Your task to perform on an android device: open app "AliExpress" Image 0: 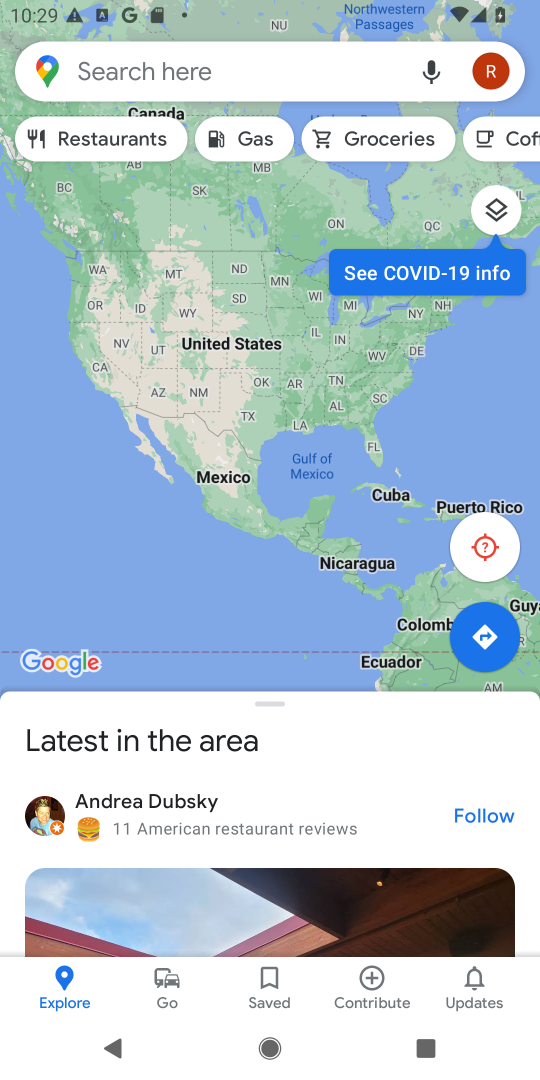
Step 0: press home button
Your task to perform on an android device: open app "AliExpress" Image 1: 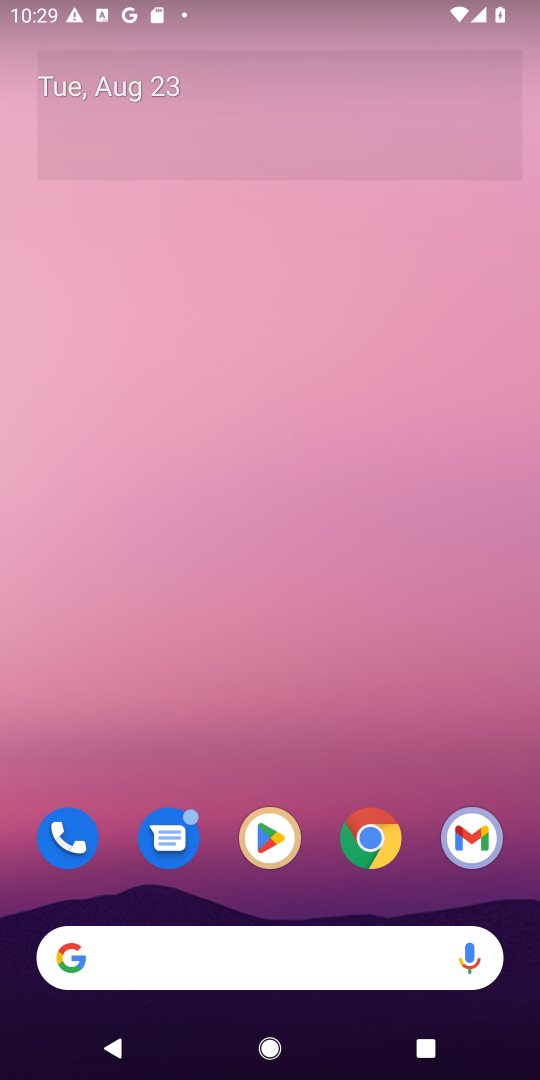
Step 1: click (270, 838)
Your task to perform on an android device: open app "AliExpress" Image 2: 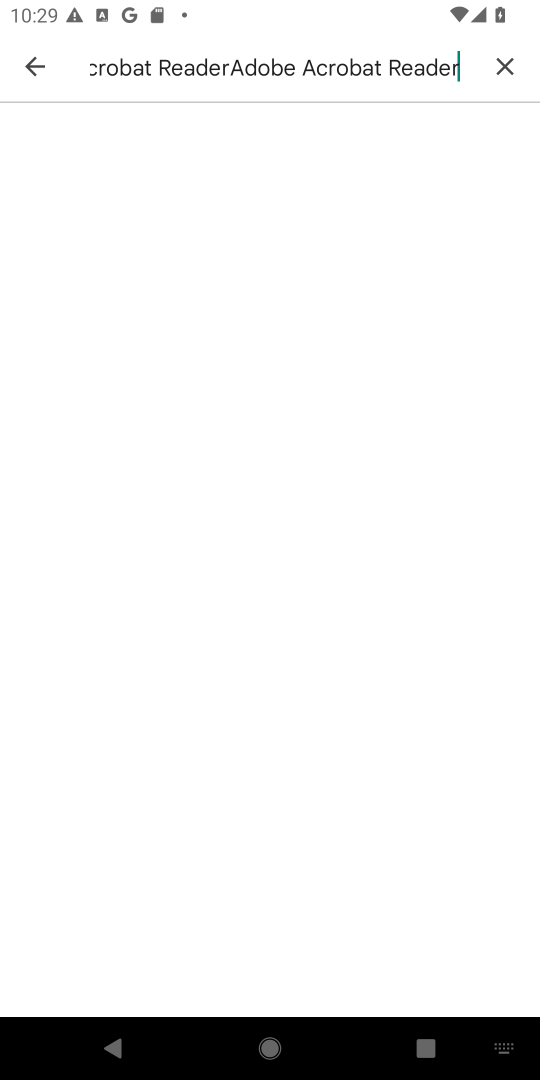
Step 2: click (496, 60)
Your task to perform on an android device: open app "AliExpress" Image 3: 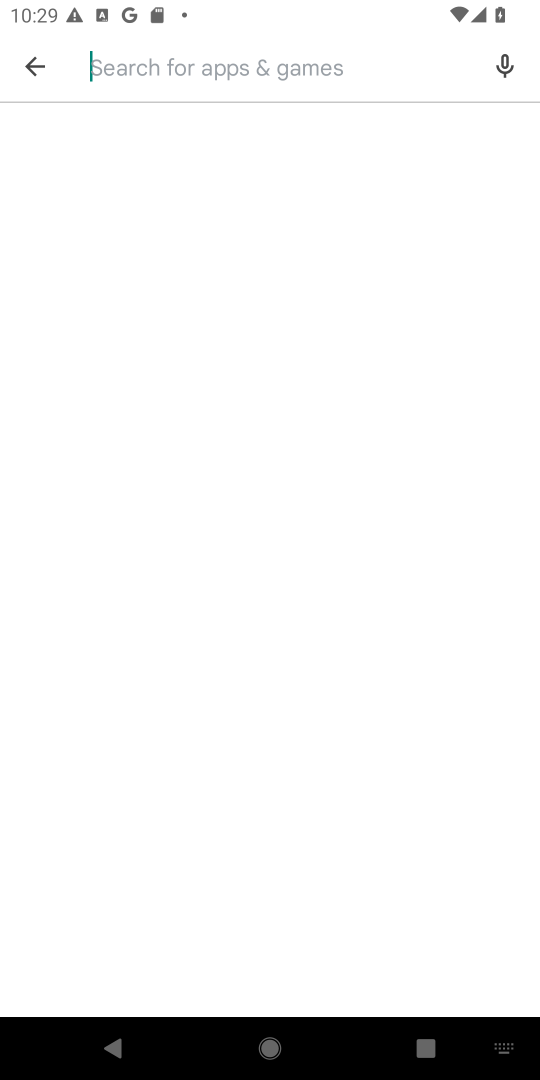
Step 3: click (493, 57)
Your task to perform on an android device: open app "AliExpress" Image 4: 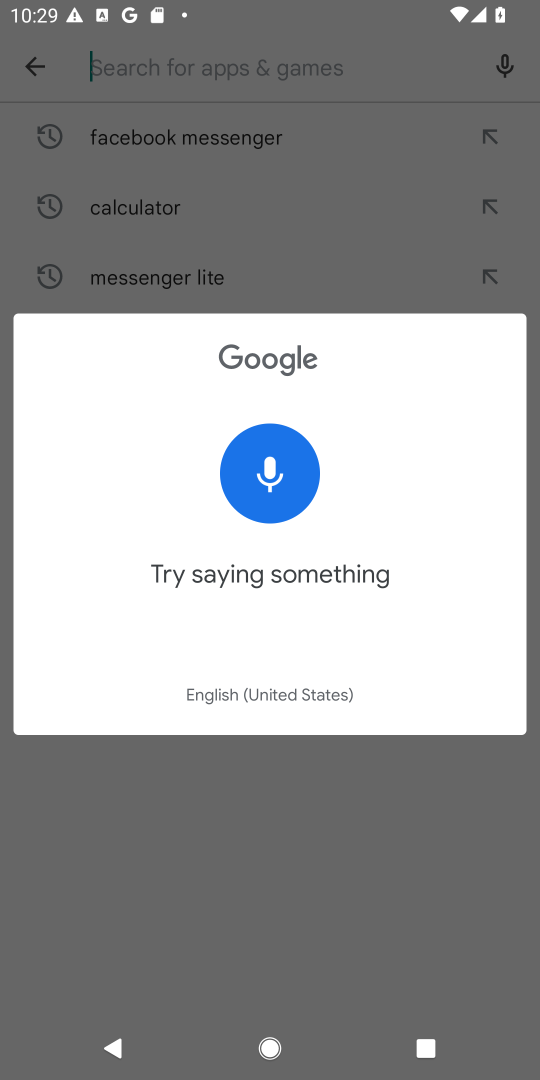
Step 4: click (189, 82)
Your task to perform on an android device: open app "AliExpress" Image 5: 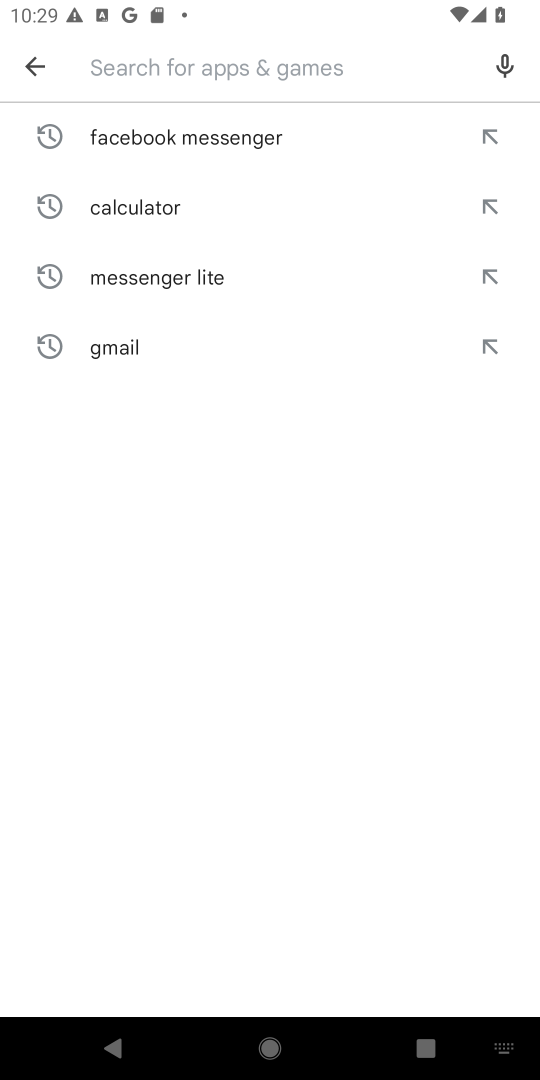
Step 5: type "AliExpress"
Your task to perform on an android device: open app "AliExpress" Image 6: 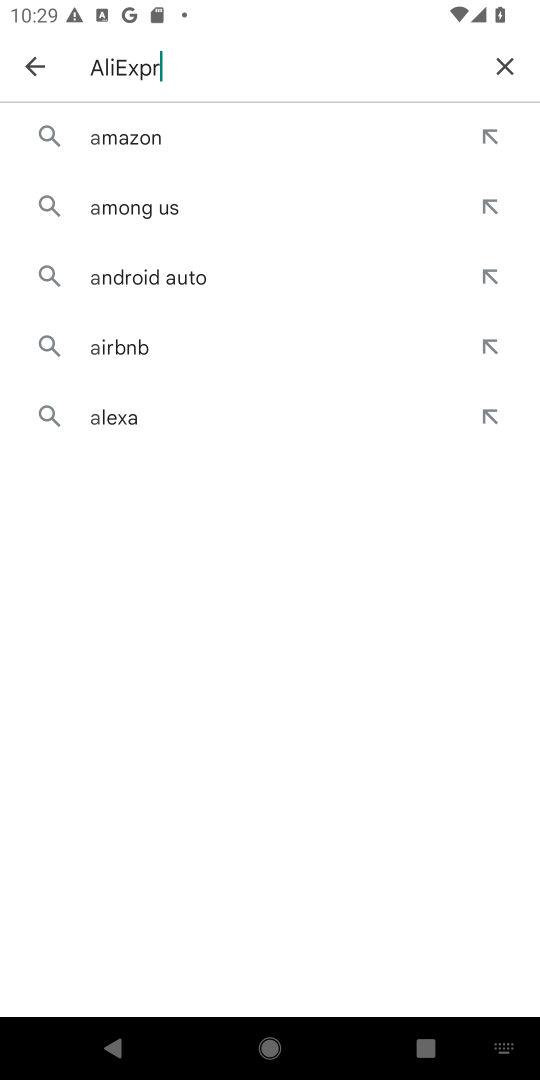
Step 6: type ""
Your task to perform on an android device: open app "AliExpress" Image 7: 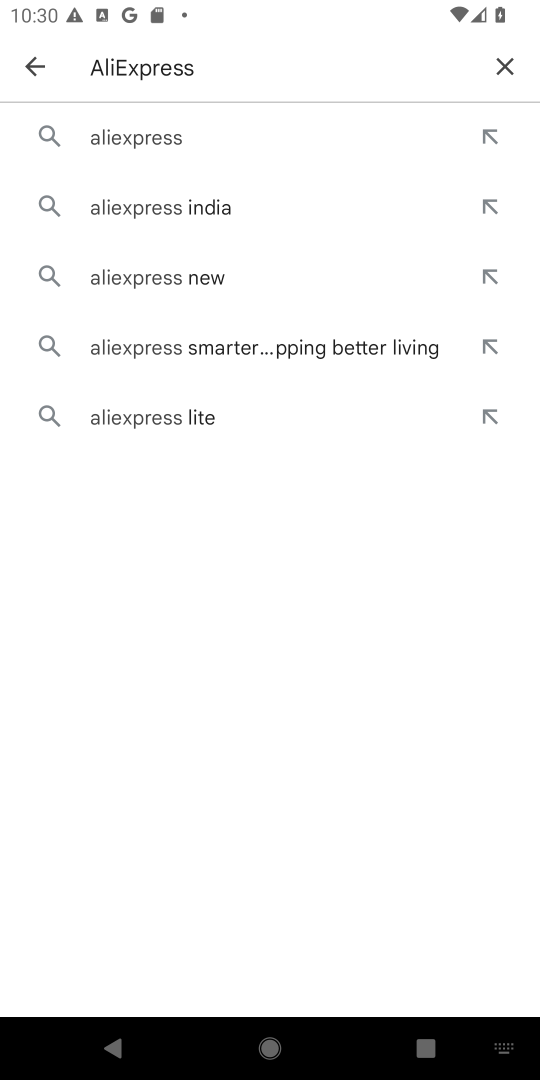
Step 7: click (261, 133)
Your task to perform on an android device: open app "AliExpress" Image 8: 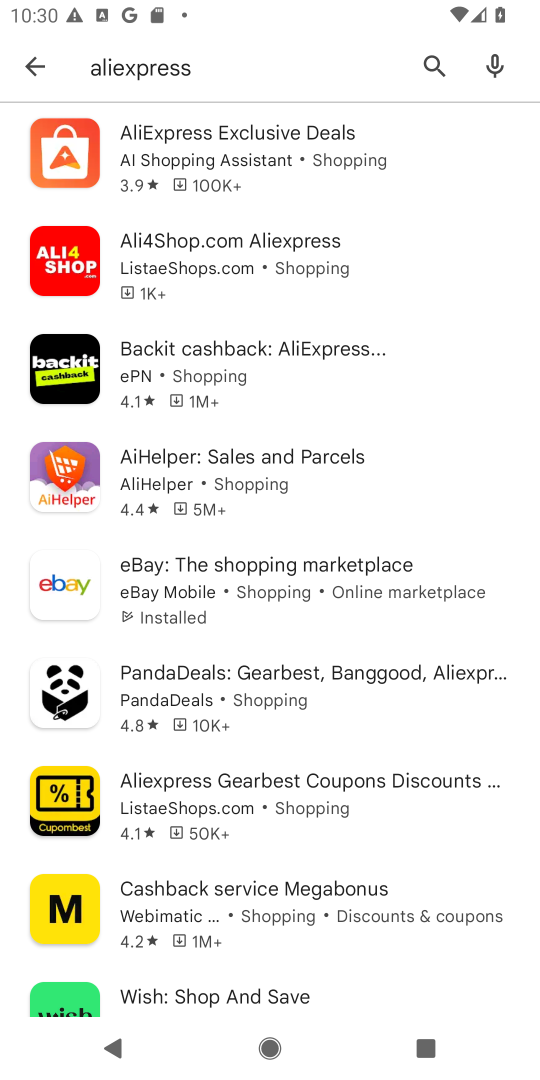
Step 8: click (261, 133)
Your task to perform on an android device: open app "AliExpress" Image 9: 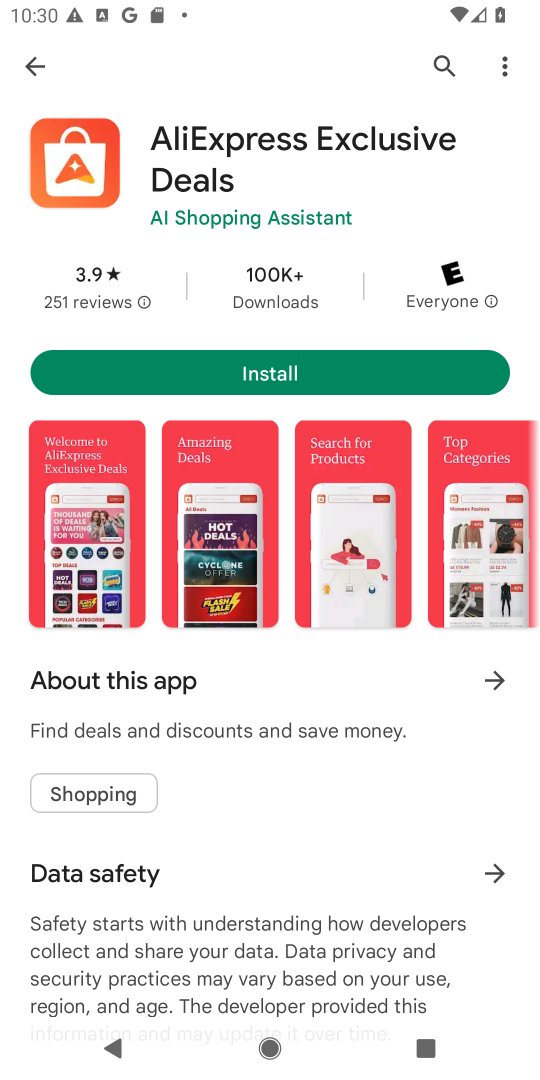
Step 9: task complete